Your task to perform on an android device: Open Chrome and go to settings Image 0: 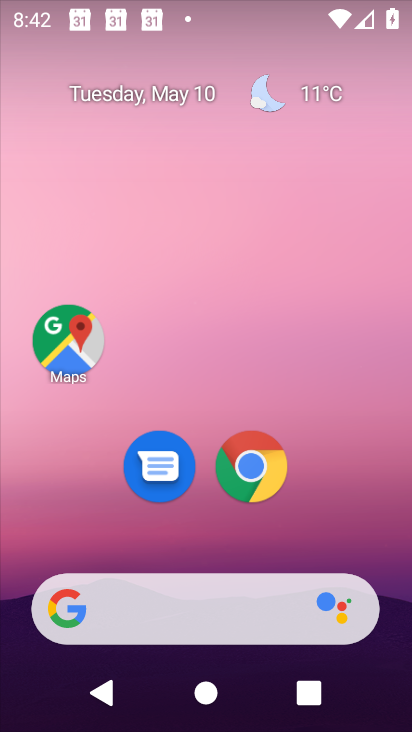
Step 0: click (265, 469)
Your task to perform on an android device: Open Chrome and go to settings Image 1: 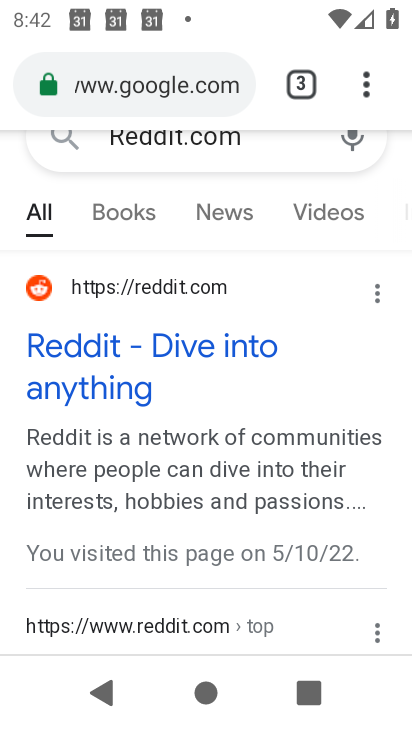
Step 1: click (363, 90)
Your task to perform on an android device: Open Chrome and go to settings Image 2: 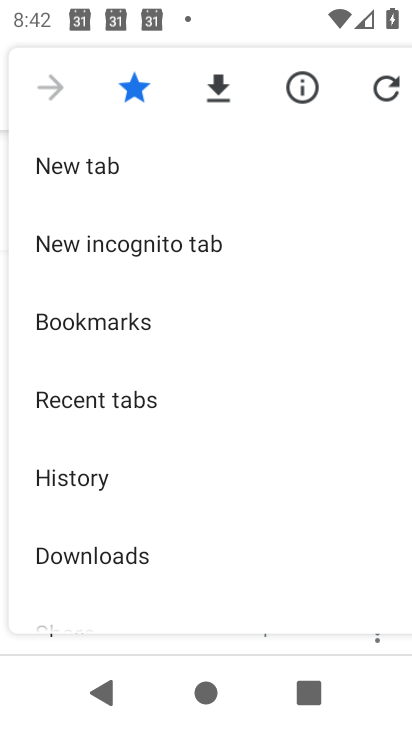
Step 2: drag from (118, 495) to (138, 166)
Your task to perform on an android device: Open Chrome and go to settings Image 3: 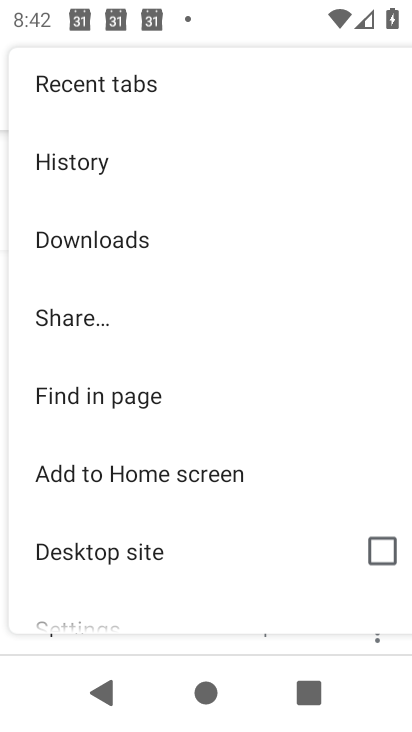
Step 3: drag from (122, 600) to (170, 331)
Your task to perform on an android device: Open Chrome and go to settings Image 4: 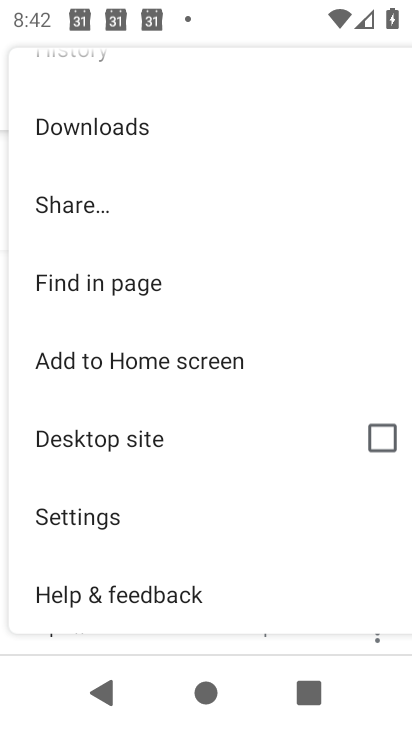
Step 4: click (101, 513)
Your task to perform on an android device: Open Chrome and go to settings Image 5: 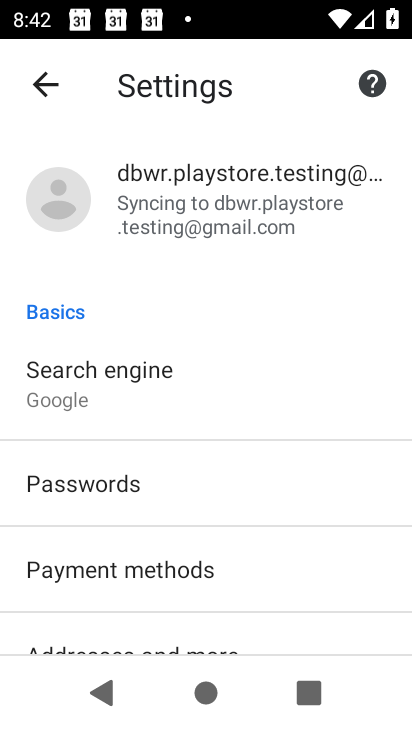
Step 5: task complete